Your task to perform on an android device: delete a single message in the gmail app Image 0: 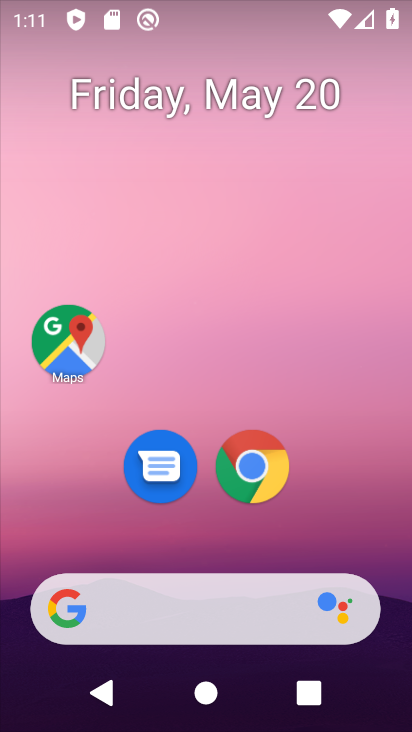
Step 0: drag from (205, 552) to (216, 236)
Your task to perform on an android device: delete a single message in the gmail app Image 1: 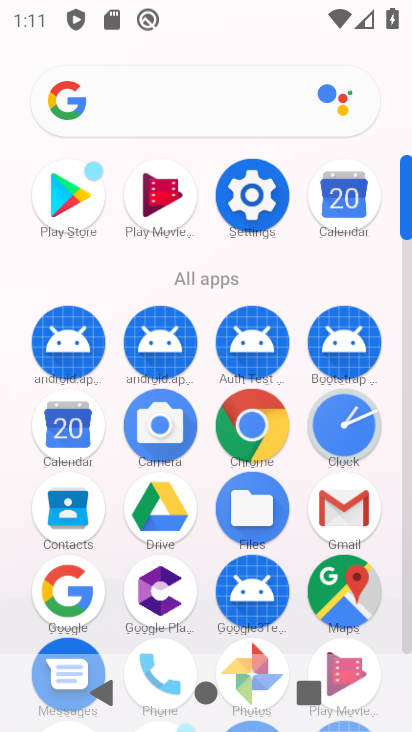
Step 1: click (324, 501)
Your task to perform on an android device: delete a single message in the gmail app Image 2: 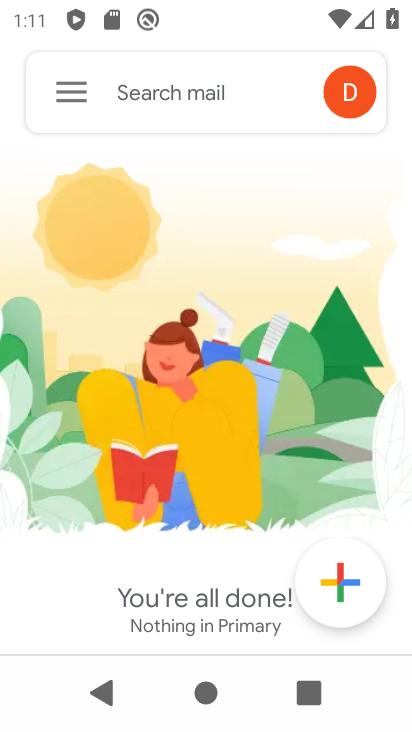
Step 2: click (69, 81)
Your task to perform on an android device: delete a single message in the gmail app Image 3: 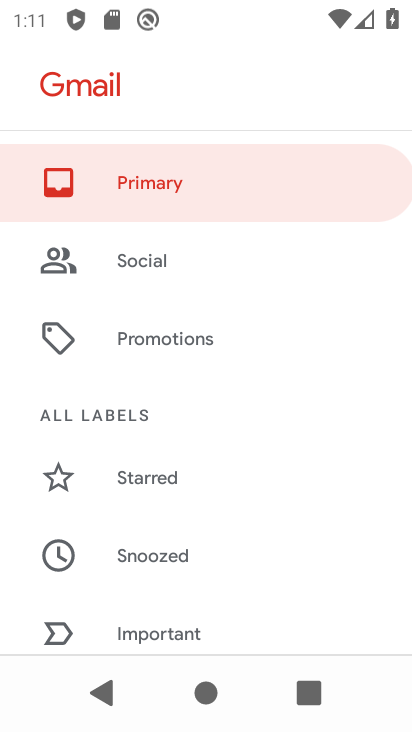
Step 3: drag from (193, 561) to (251, 308)
Your task to perform on an android device: delete a single message in the gmail app Image 4: 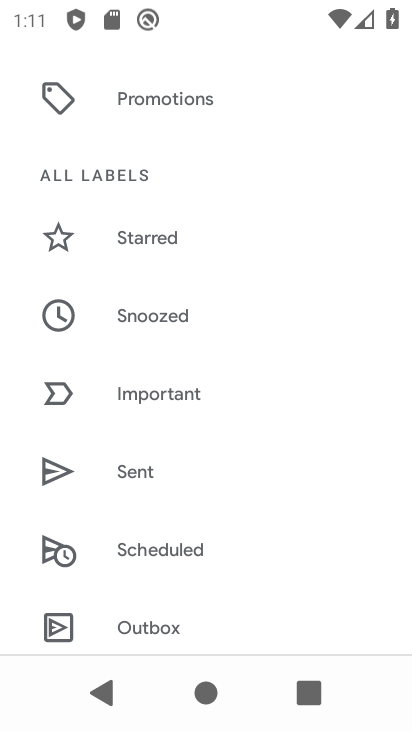
Step 4: drag from (210, 598) to (266, 314)
Your task to perform on an android device: delete a single message in the gmail app Image 5: 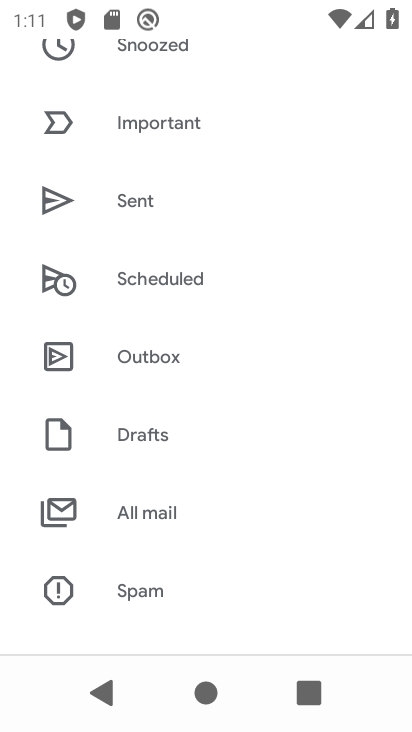
Step 5: click (161, 530)
Your task to perform on an android device: delete a single message in the gmail app Image 6: 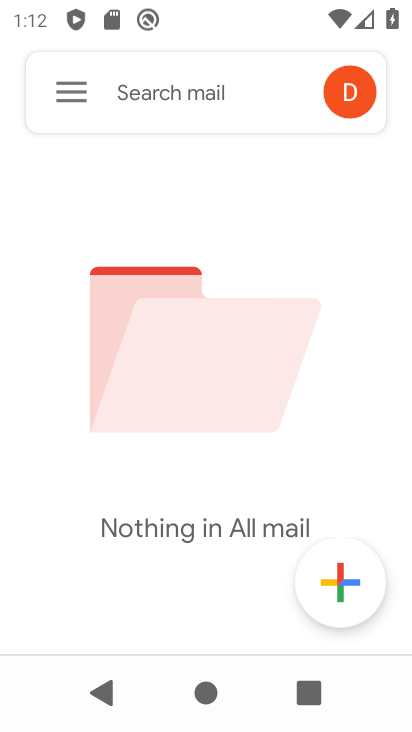
Step 6: task complete